Your task to perform on an android device: see tabs open on other devices in the chrome app Image 0: 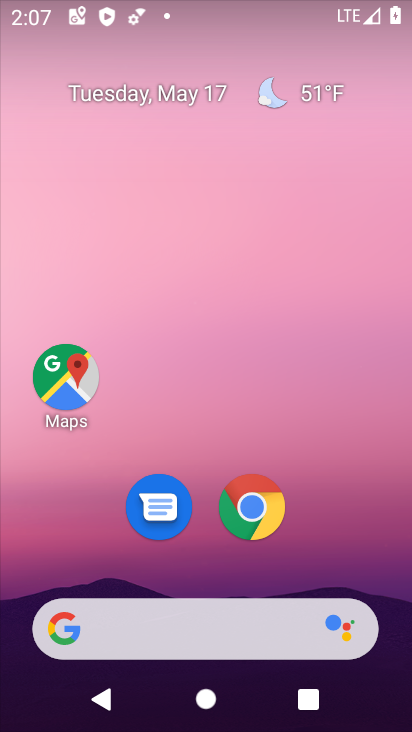
Step 0: click (250, 501)
Your task to perform on an android device: see tabs open on other devices in the chrome app Image 1: 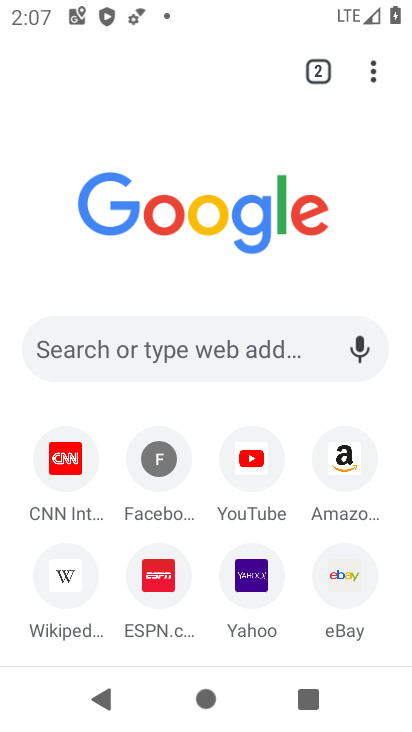
Step 1: click (368, 68)
Your task to perform on an android device: see tabs open on other devices in the chrome app Image 2: 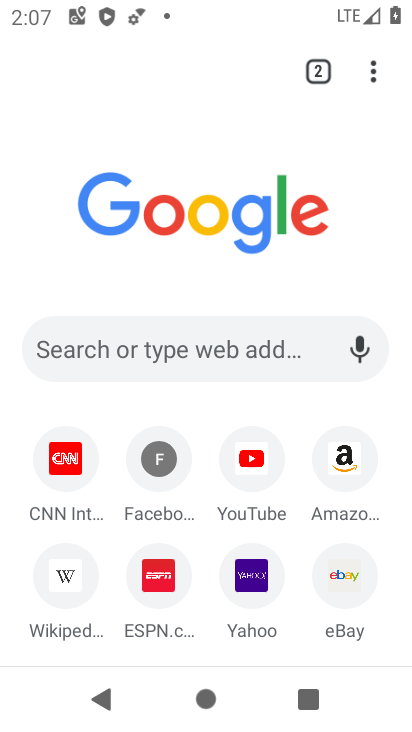
Step 2: click (377, 67)
Your task to perform on an android device: see tabs open on other devices in the chrome app Image 3: 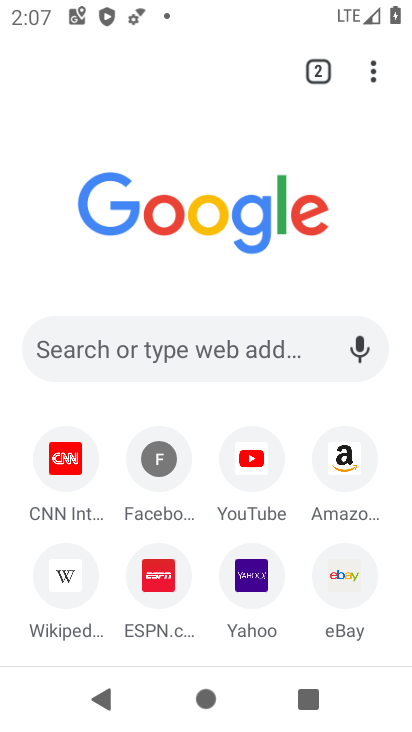
Step 3: click (372, 84)
Your task to perform on an android device: see tabs open on other devices in the chrome app Image 4: 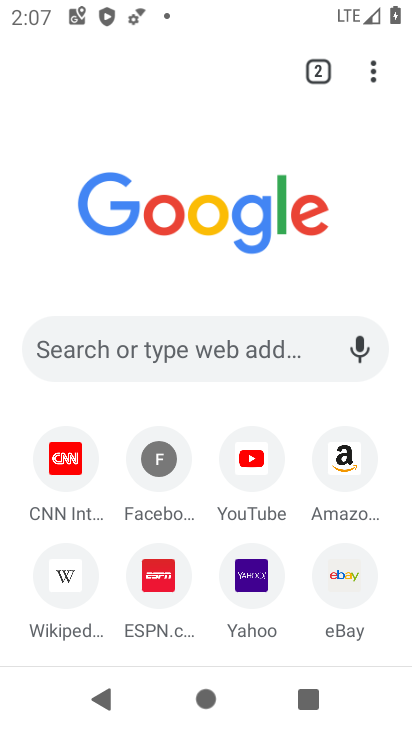
Step 4: click (367, 84)
Your task to perform on an android device: see tabs open on other devices in the chrome app Image 5: 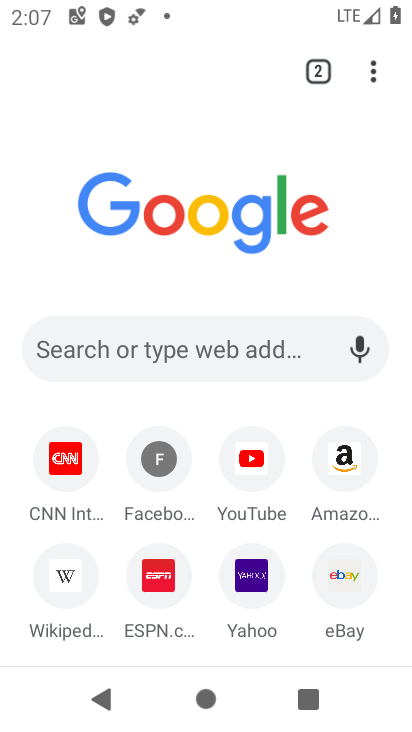
Step 5: click (362, 91)
Your task to perform on an android device: see tabs open on other devices in the chrome app Image 6: 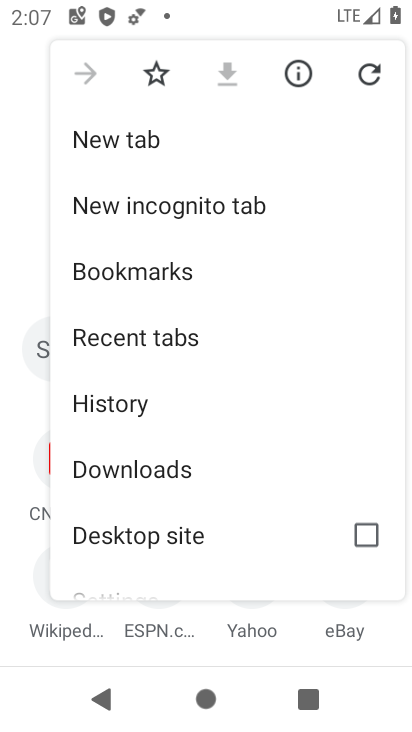
Step 6: click (172, 339)
Your task to perform on an android device: see tabs open on other devices in the chrome app Image 7: 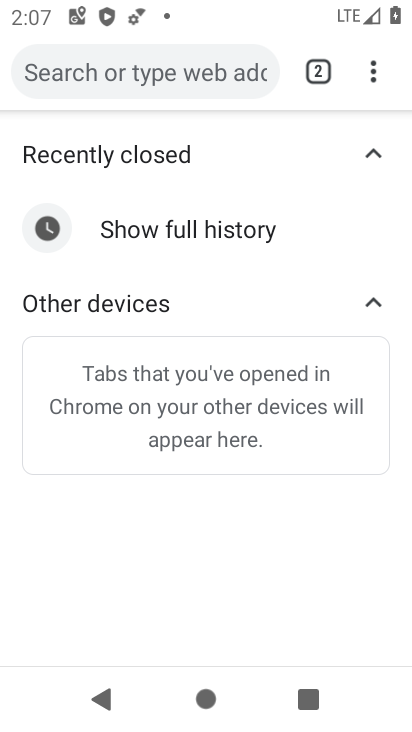
Step 7: task complete